Your task to perform on an android device: Search for Mexican restaurants on Maps Image 0: 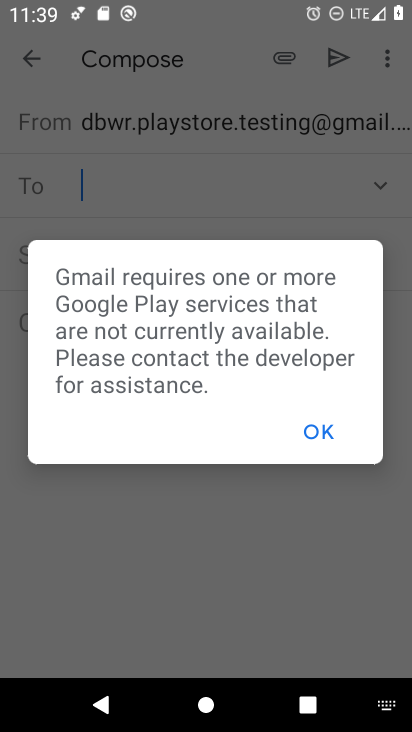
Step 0: press back button
Your task to perform on an android device: Search for Mexican restaurants on Maps Image 1: 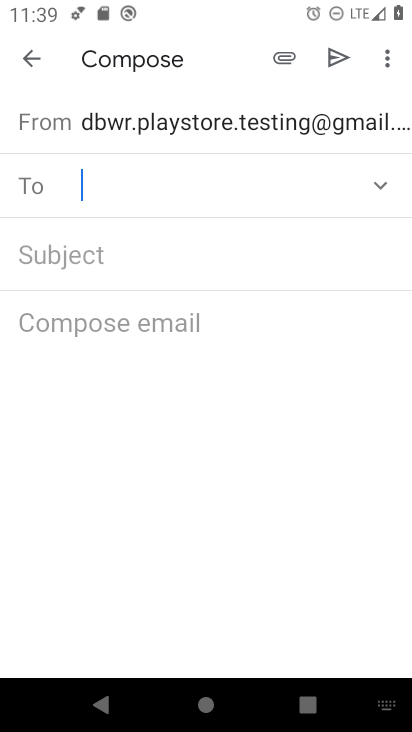
Step 1: press back button
Your task to perform on an android device: Search for Mexican restaurants on Maps Image 2: 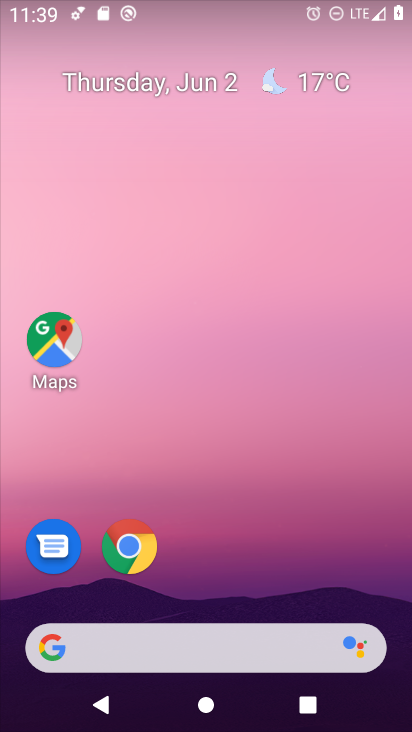
Step 2: drag from (233, 554) to (240, 14)
Your task to perform on an android device: Search for Mexican restaurants on Maps Image 3: 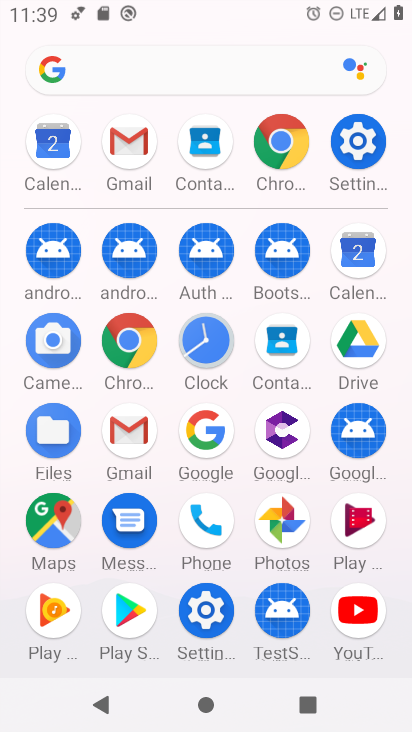
Step 3: click (51, 517)
Your task to perform on an android device: Search for Mexican restaurants on Maps Image 4: 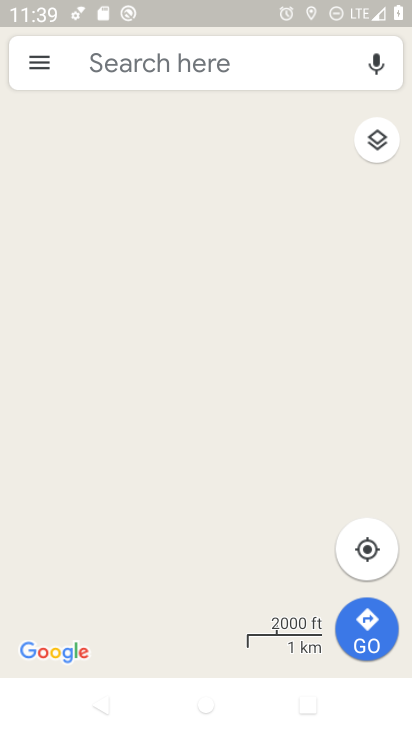
Step 4: click (261, 61)
Your task to perform on an android device: Search for Mexican restaurants on Maps Image 5: 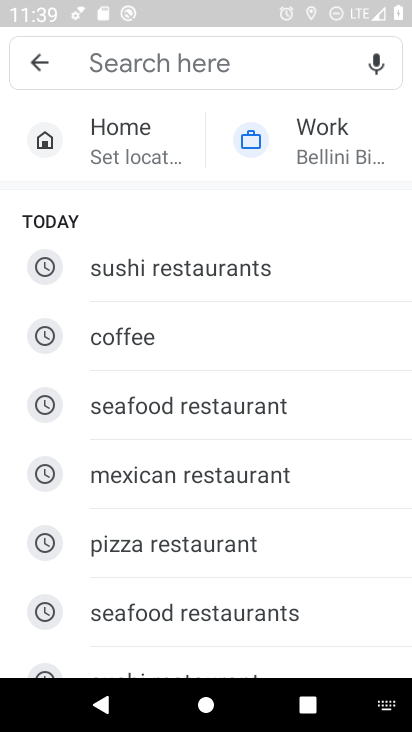
Step 5: click (166, 474)
Your task to perform on an android device: Search for Mexican restaurants on Maps Image 6: 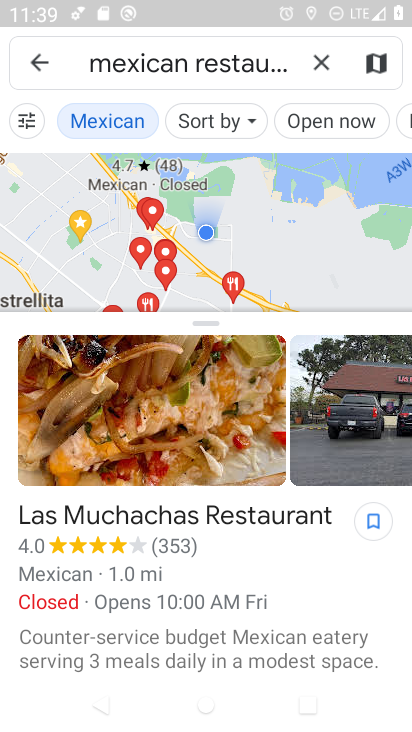
Step 6: task complete